Your task to perform on an android device: toggle location history Image 0: 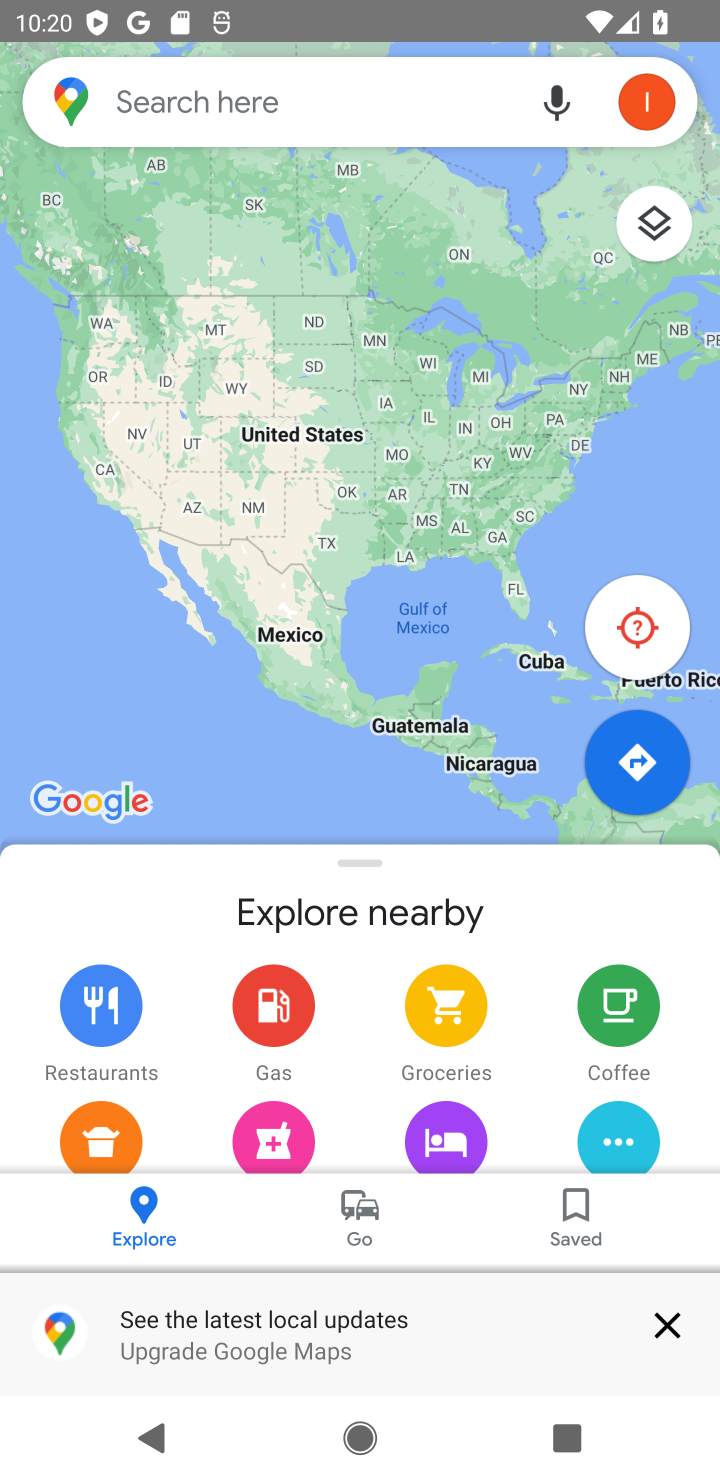
Step 0: press home button
Your task to perform on an android device: toggle location history Image 1: 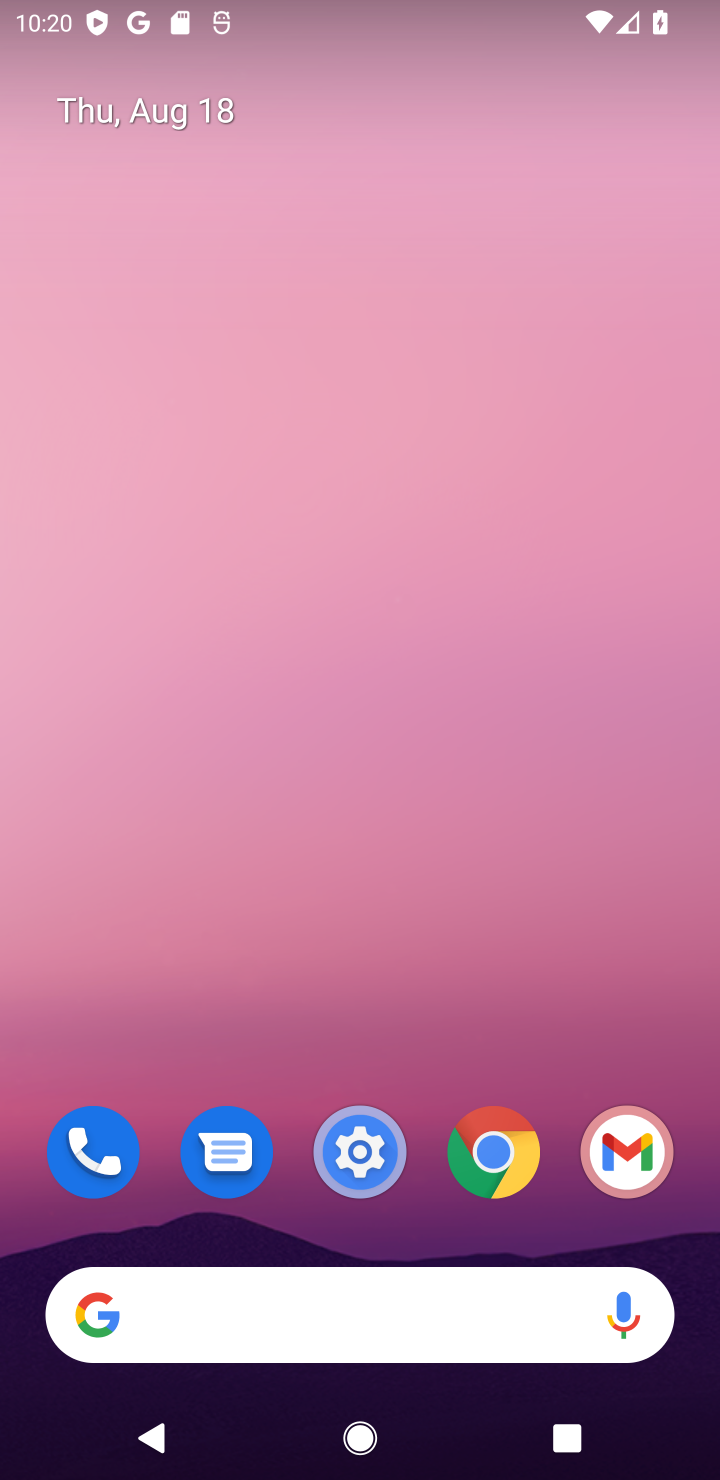
Step 1: click (362, 1148)
Your task to perform on an android device: toggle location history Image 2: 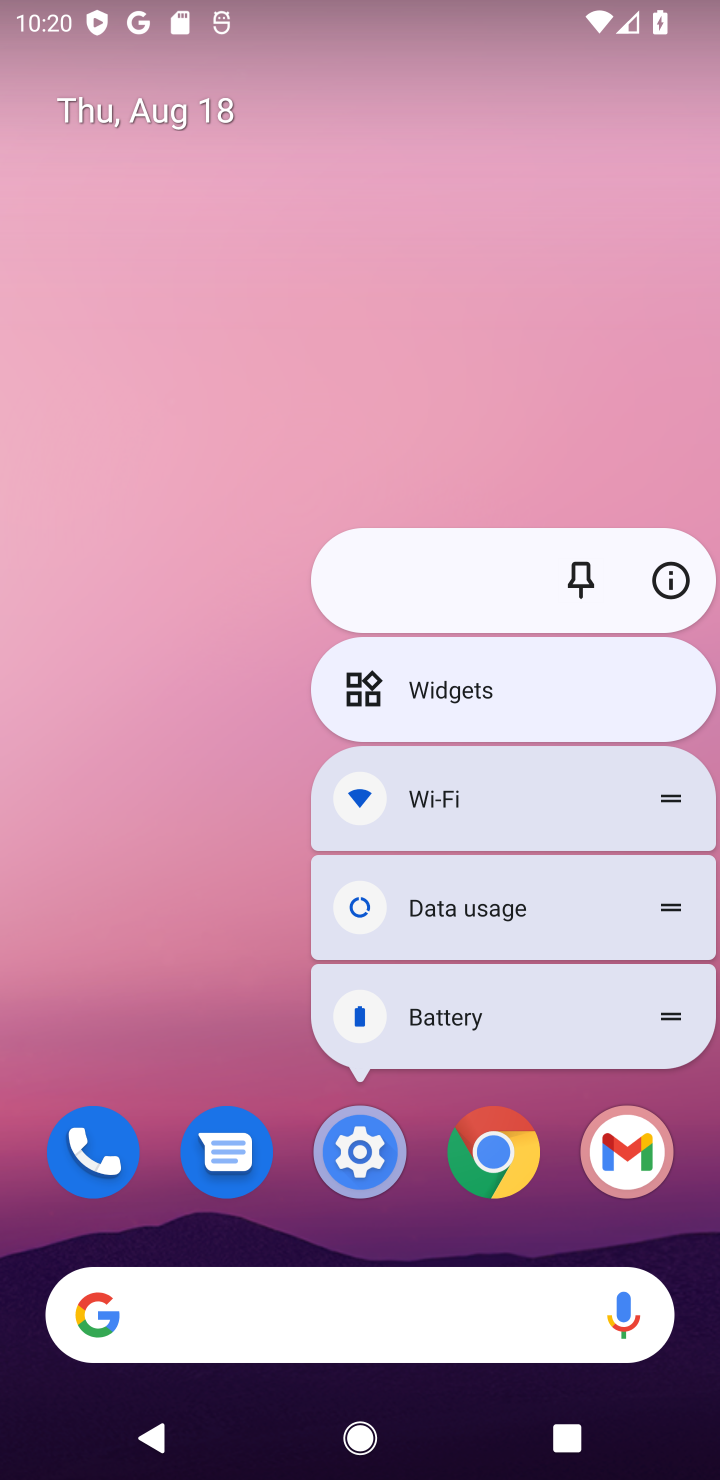
Step 2: click (362, 1148)
Your task to perform on an android device: toggle location history Image 3: 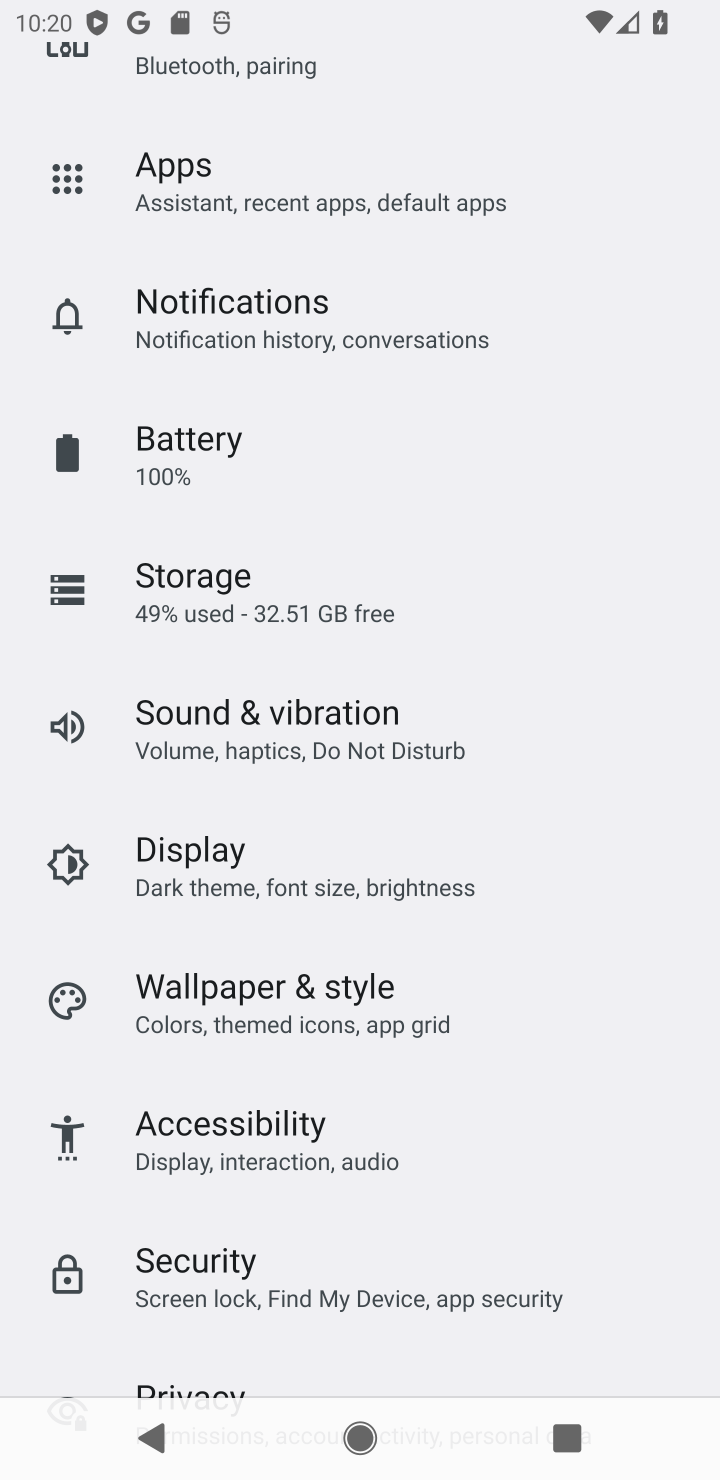
Step 3: drag from (446, 1153) to (468, 231)
Your task to perform on an android device: toggle location history Image 4: 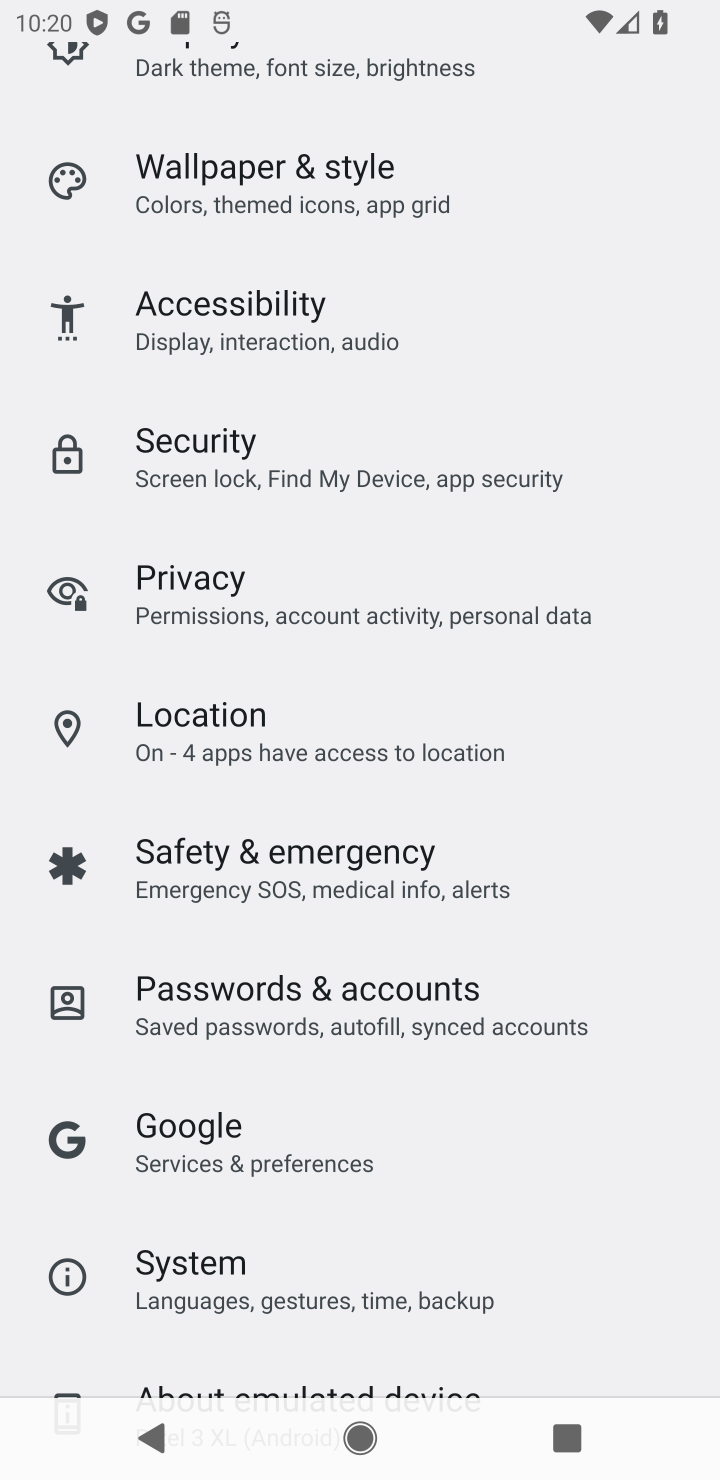
Step 4: click (325, 751)
Your task to perform on an android device: toggle location history Image 5: 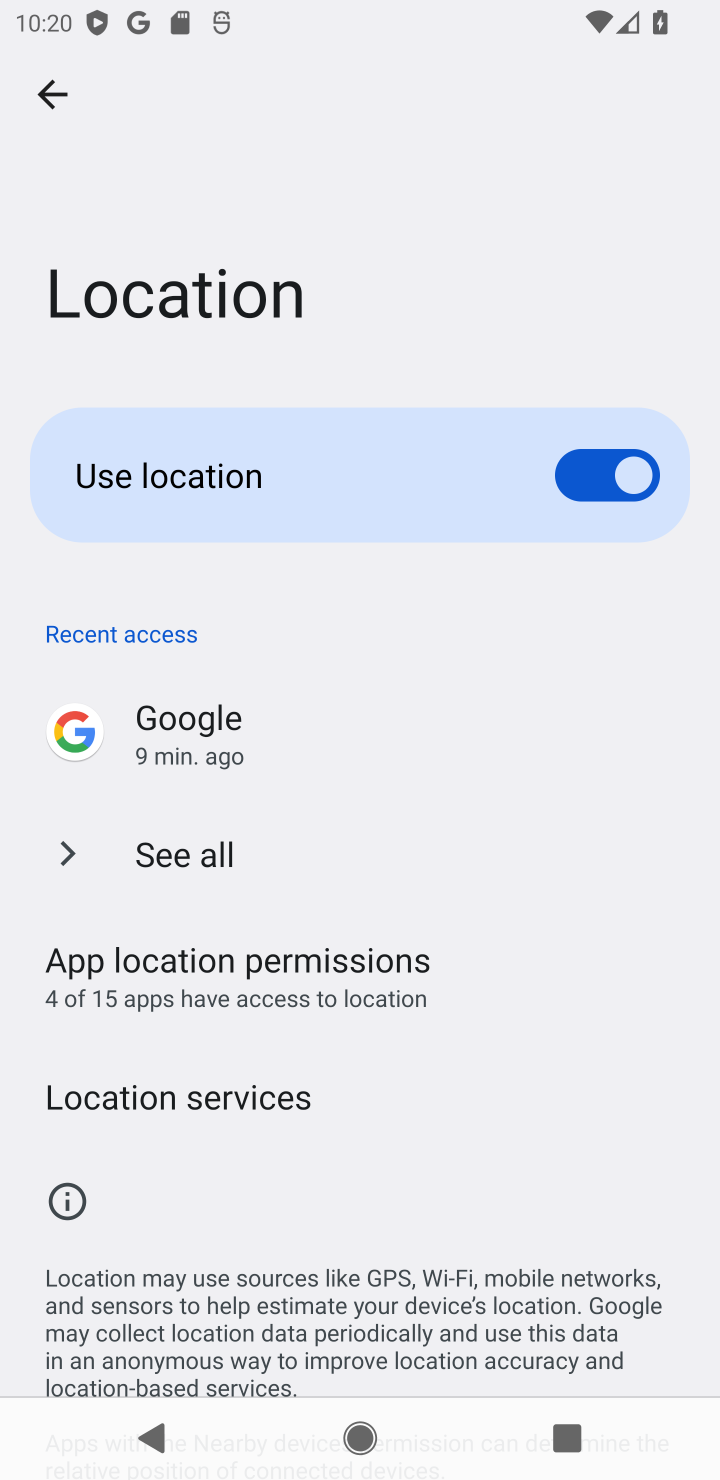
Step 5: click (254, 1097)
Your task to perform on an android device: toggle location history Image 6: 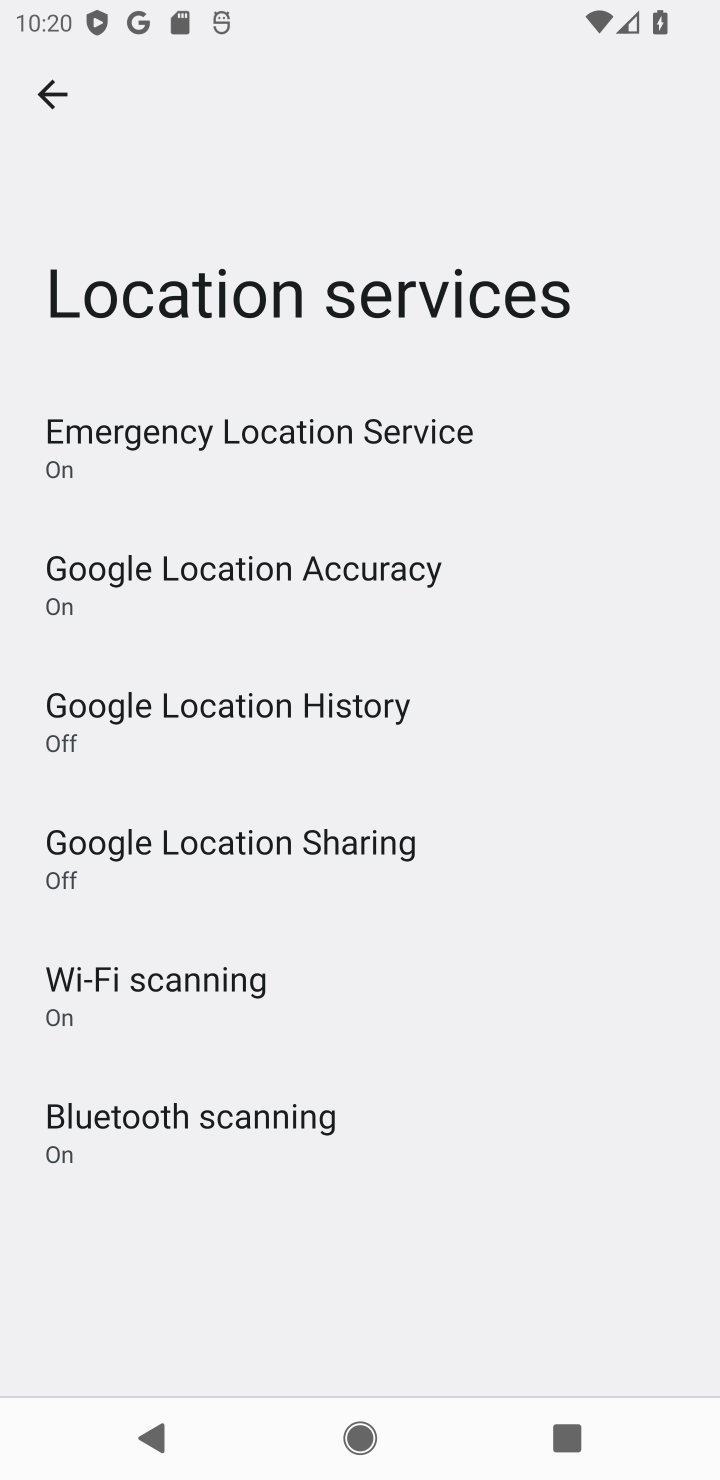
Step 6: click (293, 710)
Your task to perform on an android device: toggle location history Image 7: 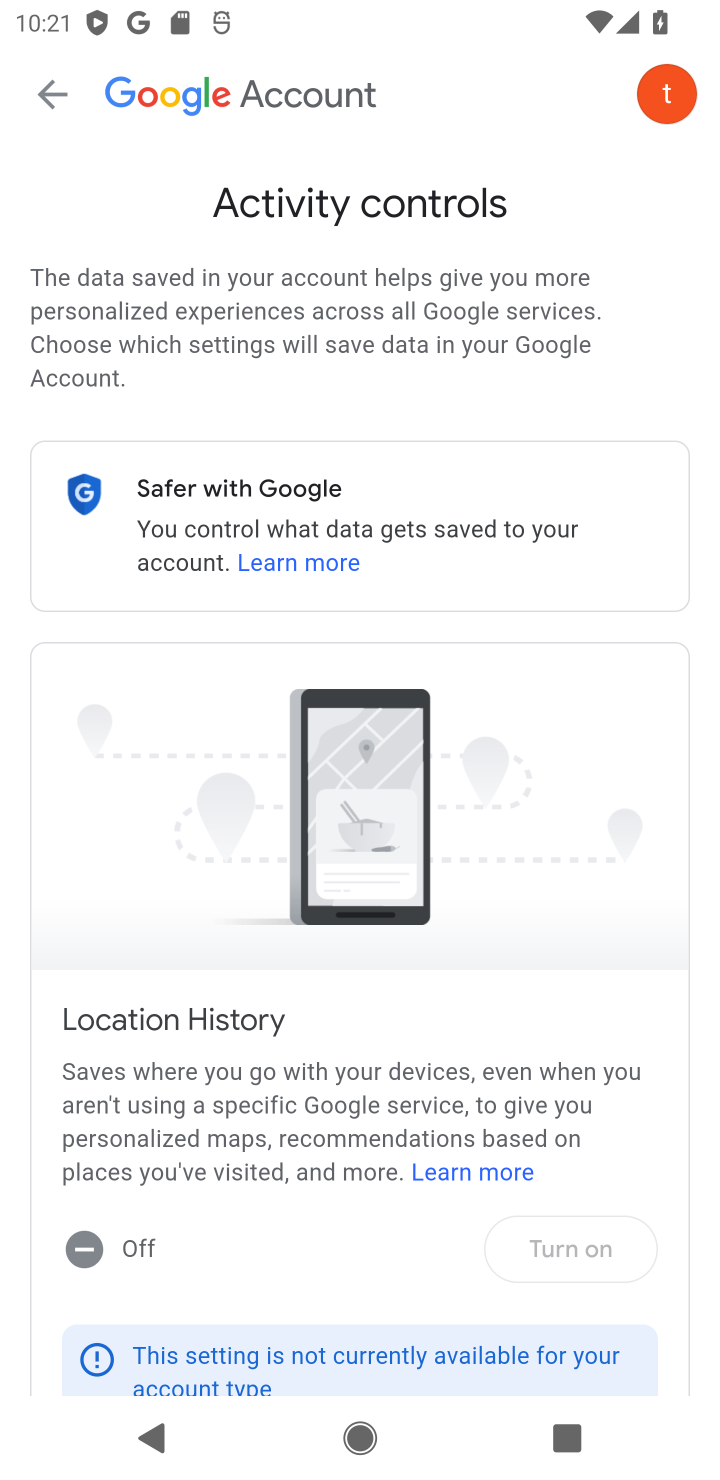
Step 7: click (589, 1241)
Your task to perform on an android device: toggle location history Image 8: 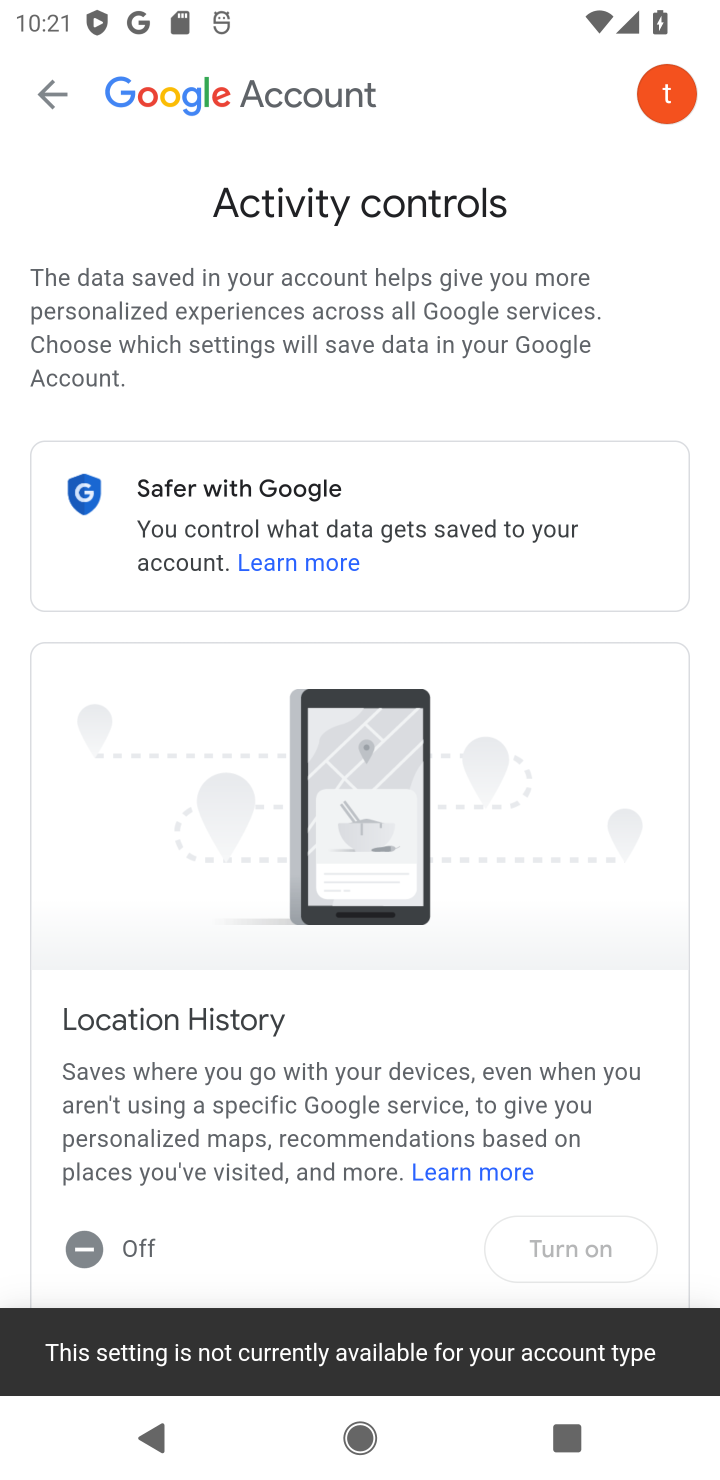
Step 8: click (589, 1244)
Your task to perform on an android device: toggle location history Image 9: 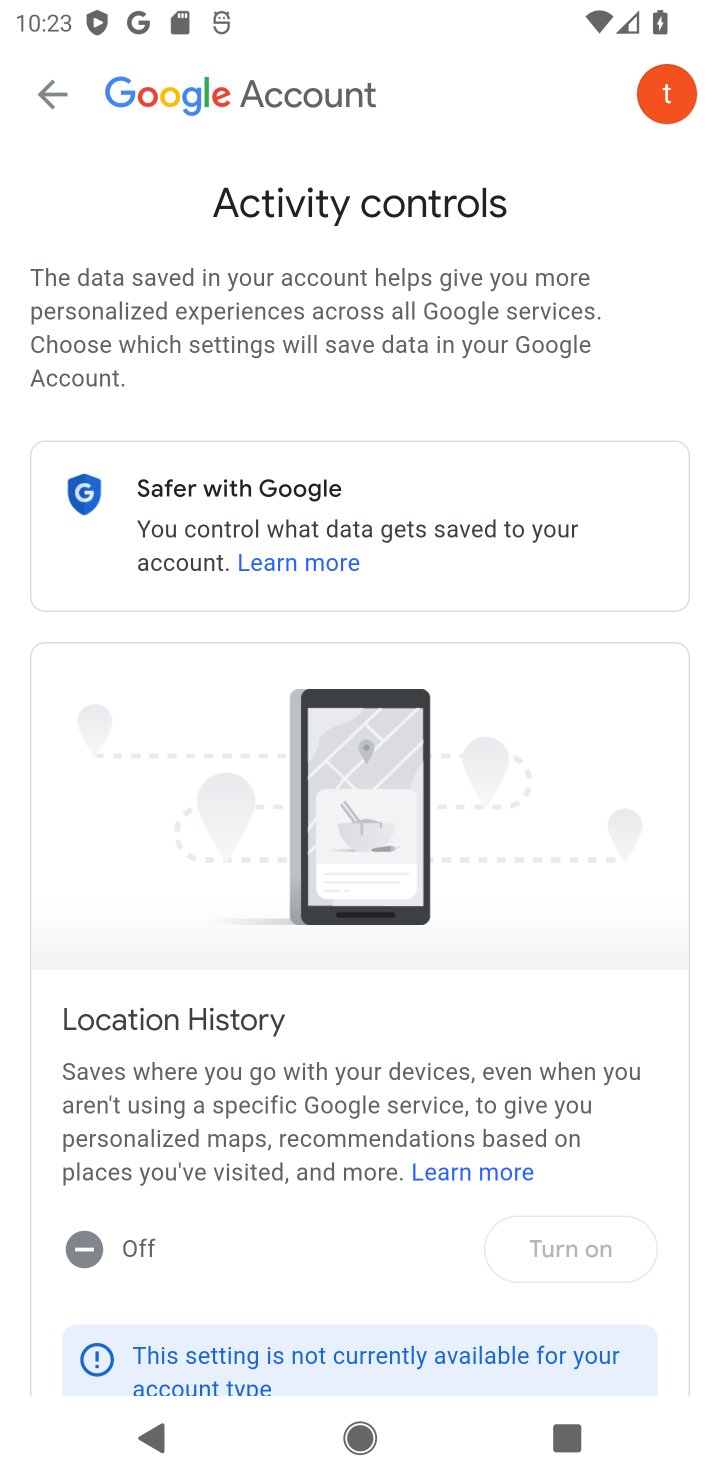
Step 9: task complete